Your task to perform on an android device: check the backup settings in the google photos Image 0: 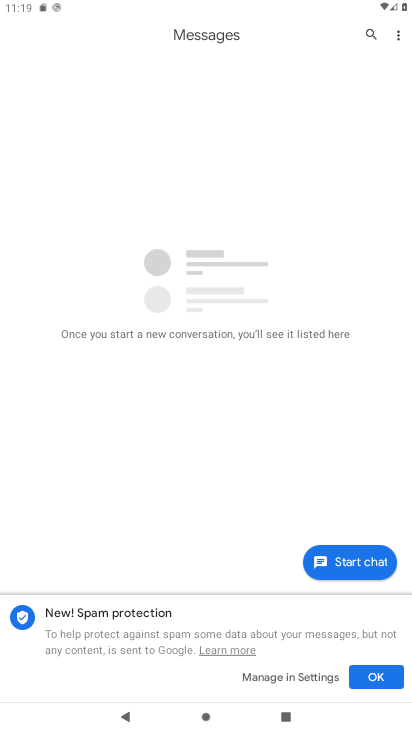
Step 0: press home button
Your task to perform on an android device: check the backup settings in the google photos Image 1: 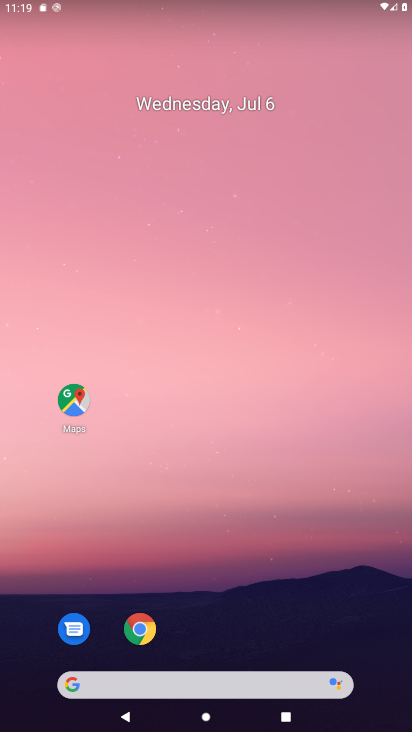
Step 1: drag from (362, 618) to (370, 142)
Your task to perform on an android device: check the backup settings in the google photos Image 2: 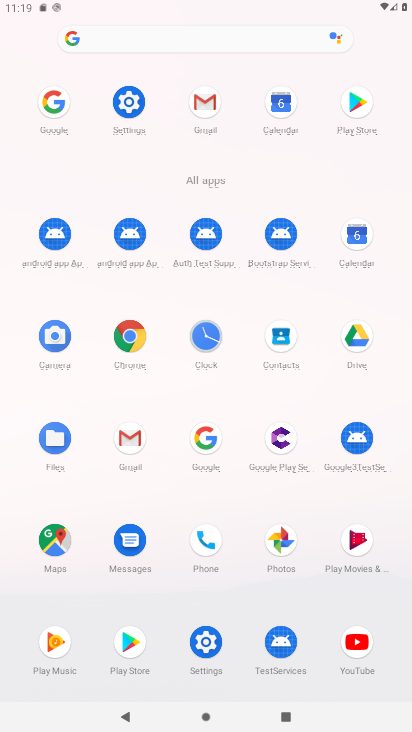
Step 2: click (283, 539)
Your task to perform on an android device: check the backup settings in the google photos Image 3: 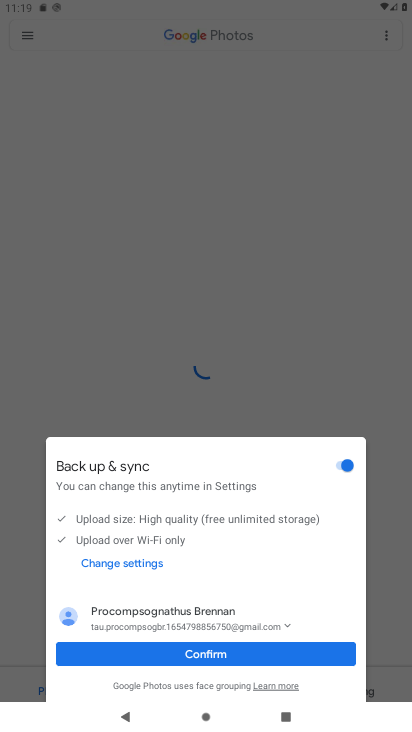
Step 3: click (204, 652)
Your task to perform on an android device: check the backup settings in the google photos Image 4: 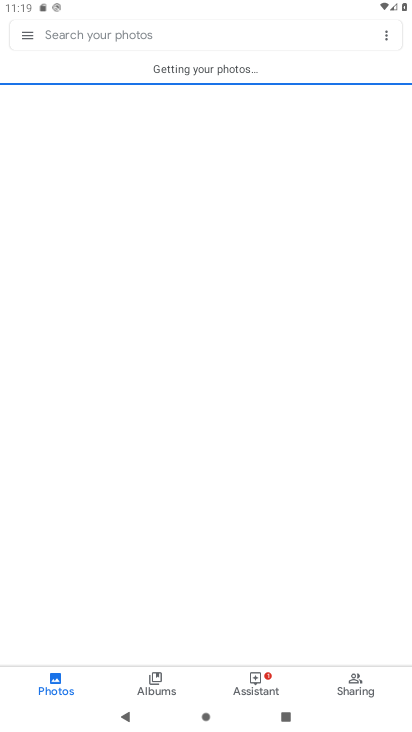
Step 4: click (29, 35)
Your task to perform on an android device: check the backup settings in the google photos Image 5: 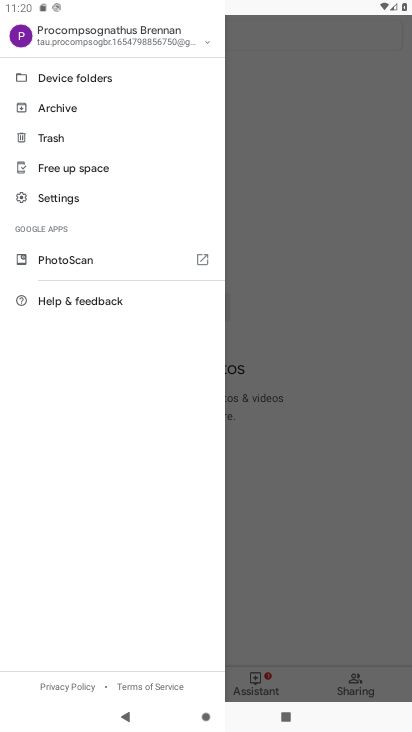
Step 5: click (83, 201)
Your task to perform on an android device: check the backup settings in the google photos Image 6: 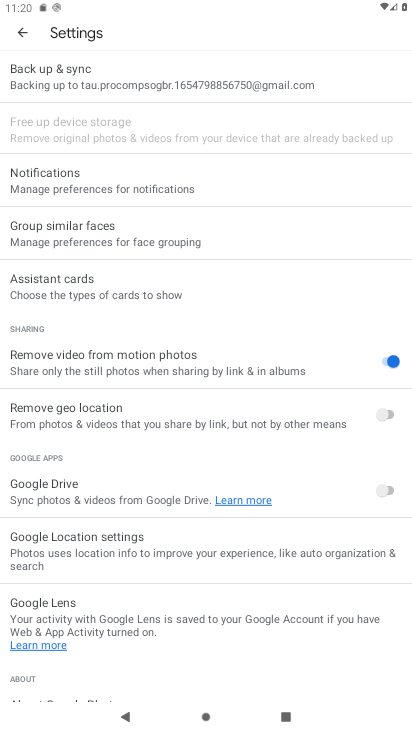
Step 6: click (122, 82)
Your task to perform on an android device: check the backup settings in the google photos Image 7: 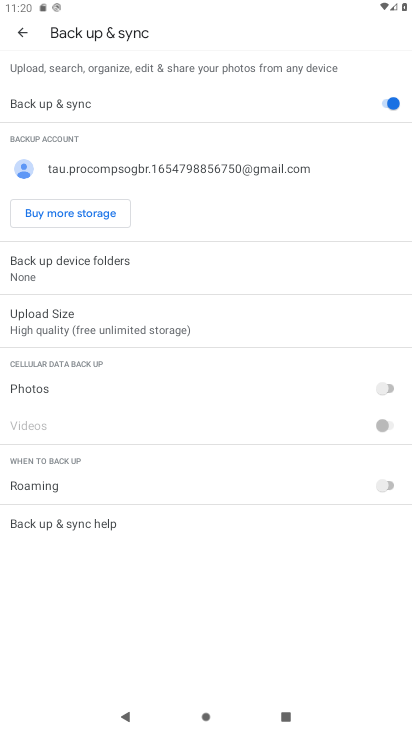
Step 7: task complete